Your task to perform on an android device: Open Amazon Image 0: 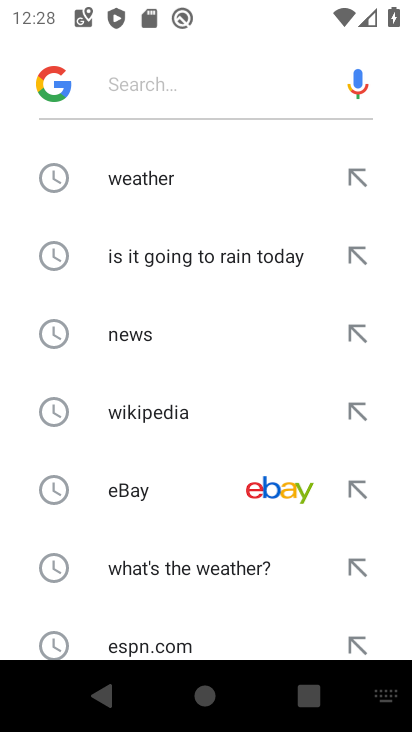
Step 0: type "amazom"
Your task to perform on an android device: Open Amazon Image 1: 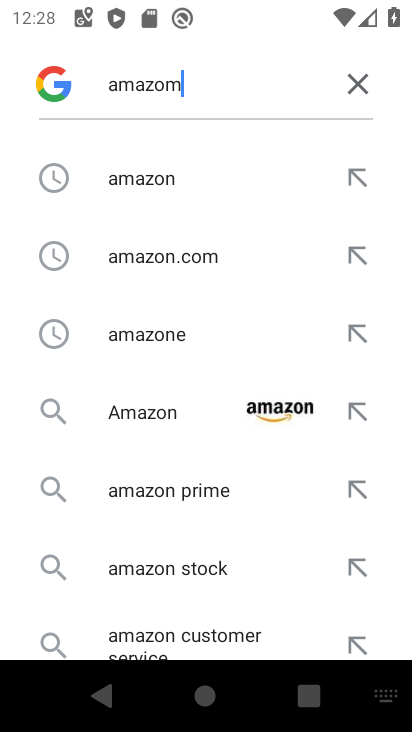
Step 1: click (188, 199)
Your task to perform on an android device: Open Amazon Image 2: 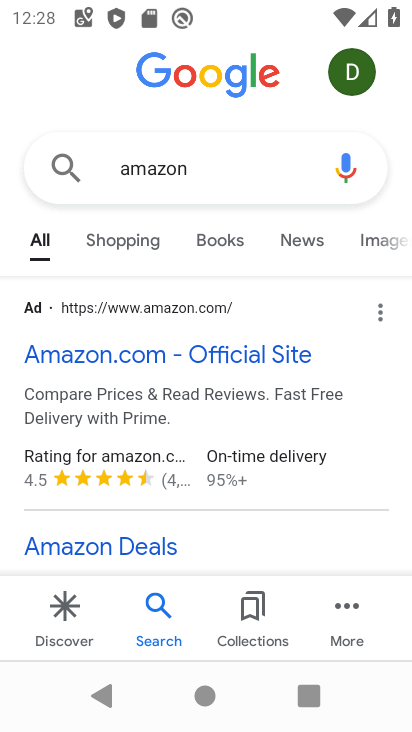
Step 2: click (164, 354)
Your task to perform on an android device: Open Amazon Image 3: 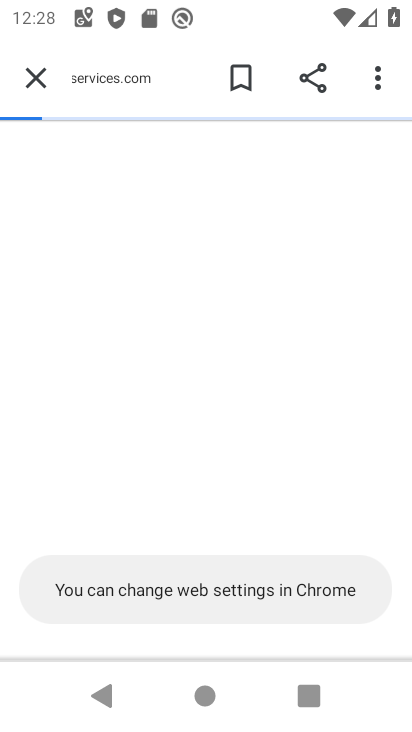
Step 3: task complete